Your task to perform on an android device: Search for "macbook pro 13 inch" on walmart.com, select the first entry, and add it to the cart. Image 0: 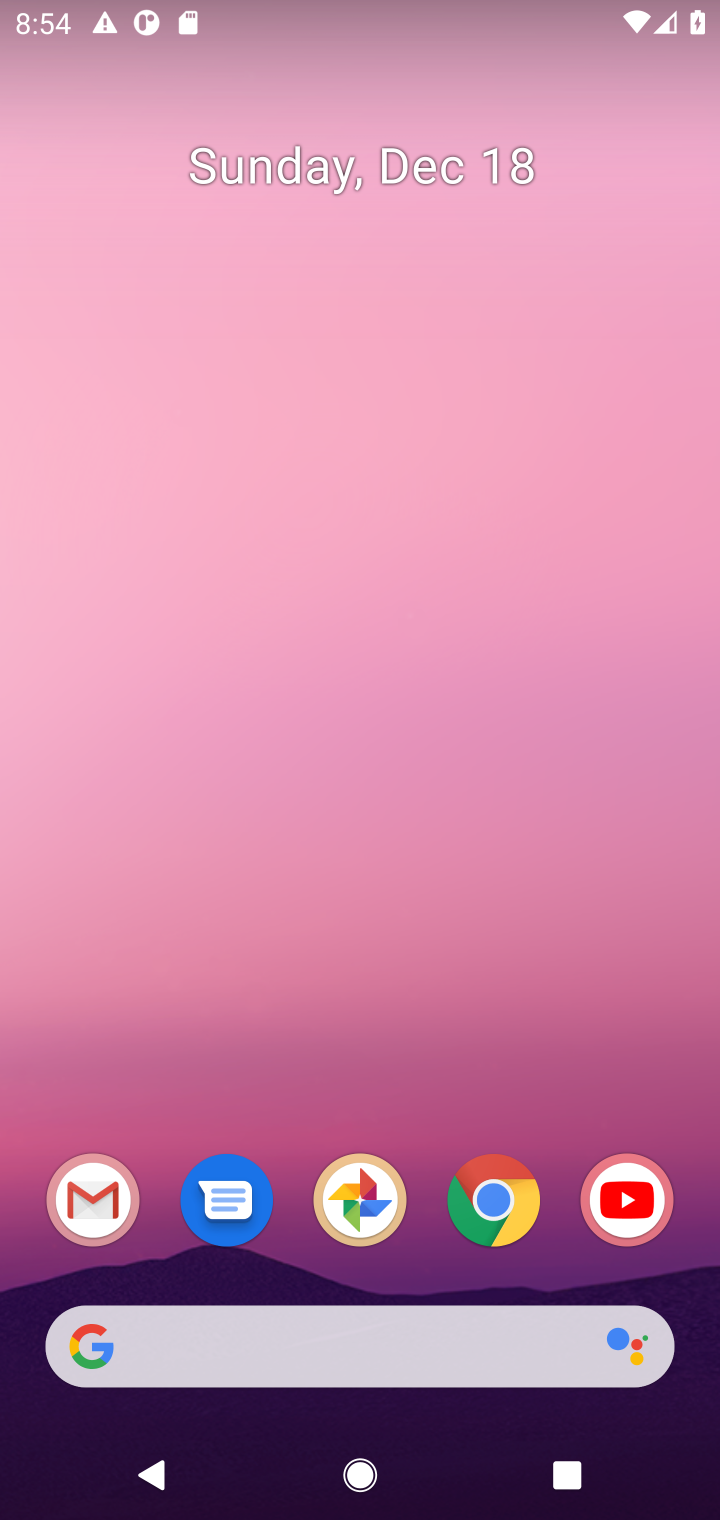
Step 0: click (494, 1207)
Your task to perform on an android device: Search for "macbook pro 13 inch" on walmart.com, select the first entry, and add it to the cart. Image 1: 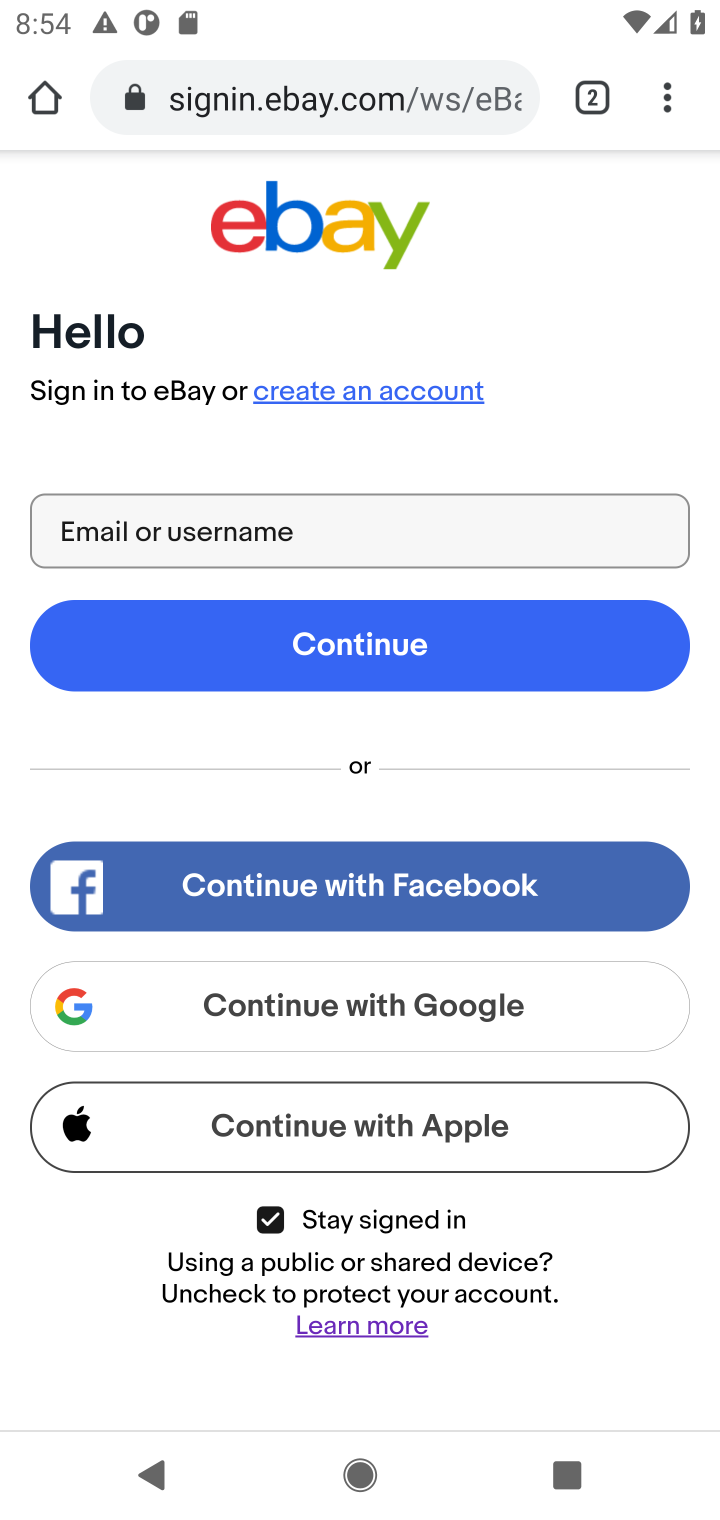
Step 1: click (186, 98)
Your task to perform on an android device: Search for "macbook pro 13 inch" on walmart.com, select the first entry, and add it to the cart. Image 2: 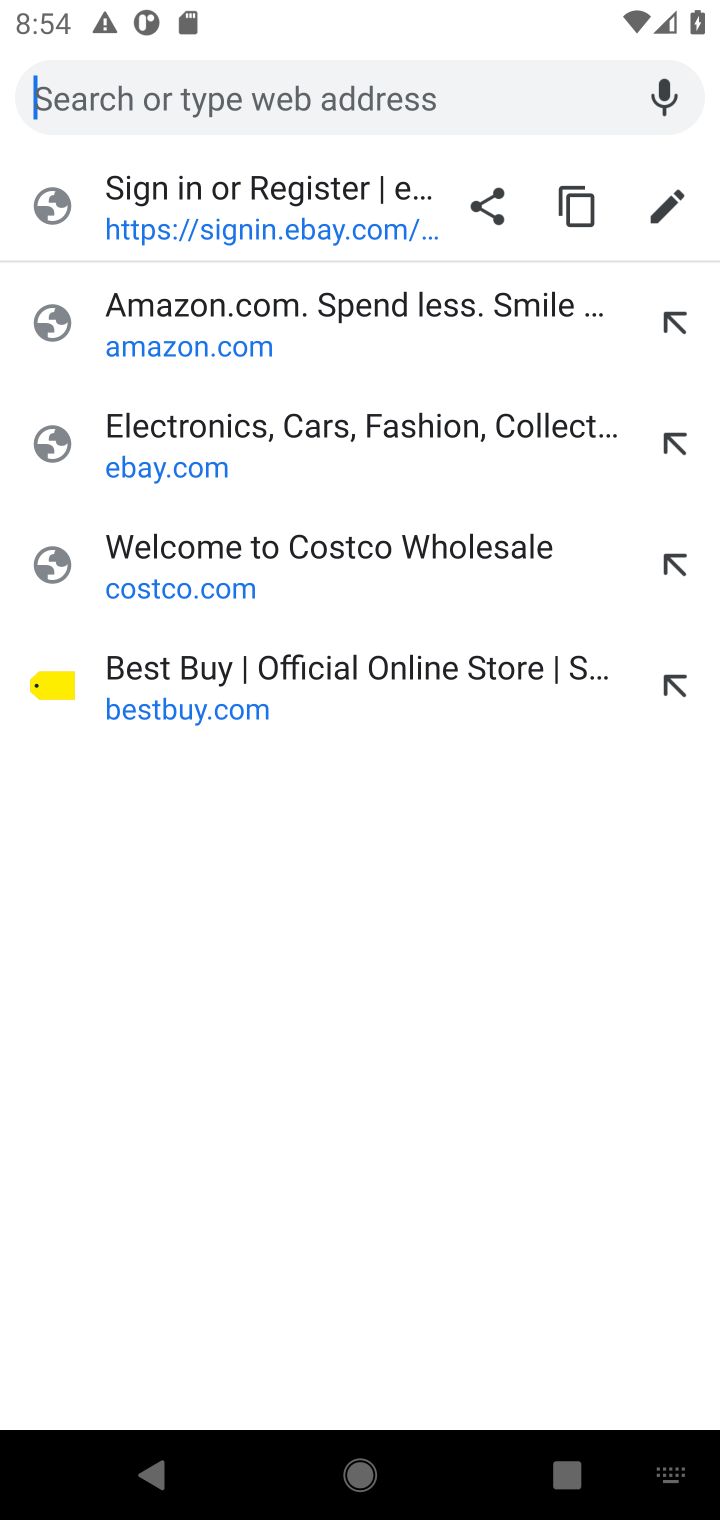
Step 2: type "walmart.com"
Your task to perform on an android device: Search for "macbook pro 13 inch" on walmart.com, select the first entry, and add it to the cart. Image 3: 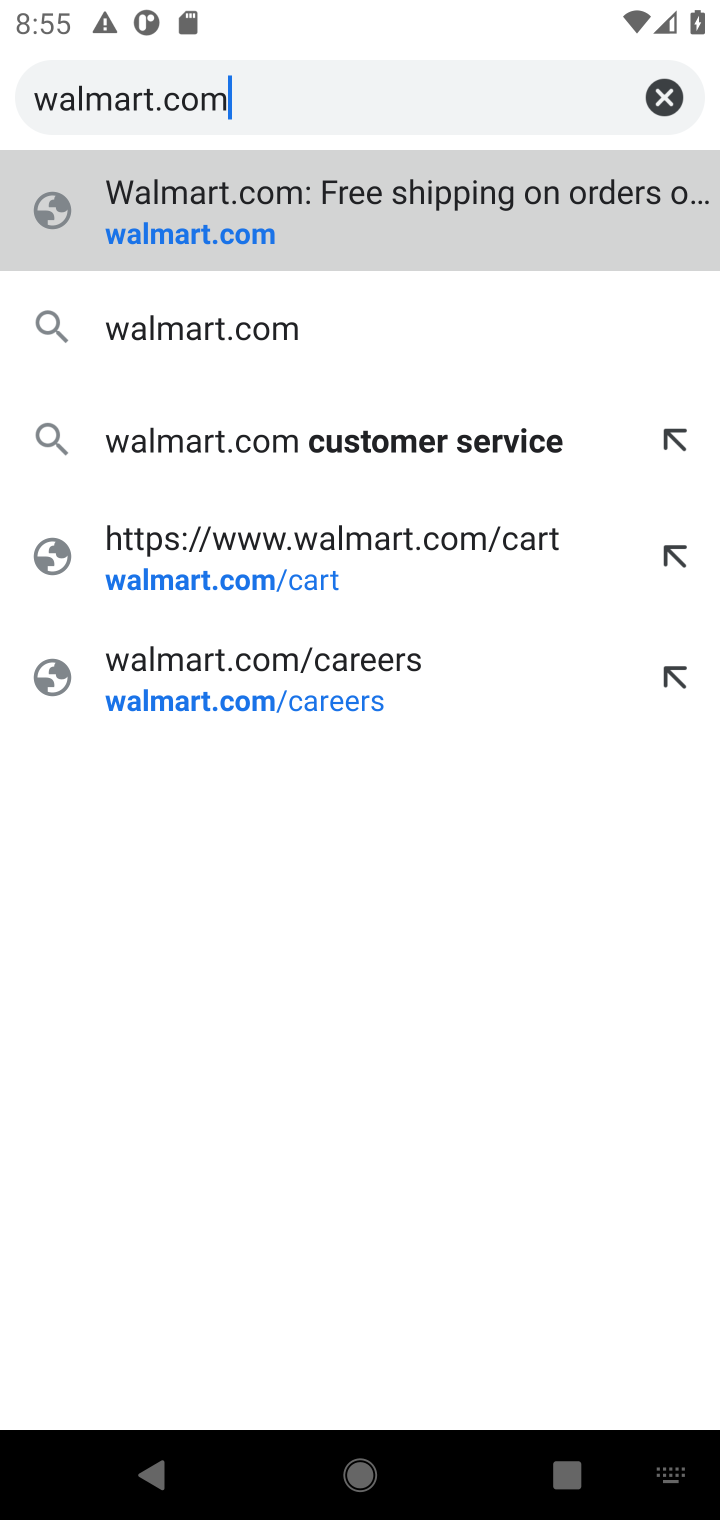
Step 3: click (141, 204)
Your task to perform on an android device: Search for "macbook pro 13 inch" on walmart.com, select the first entry, and add it to the cart. Image 4: 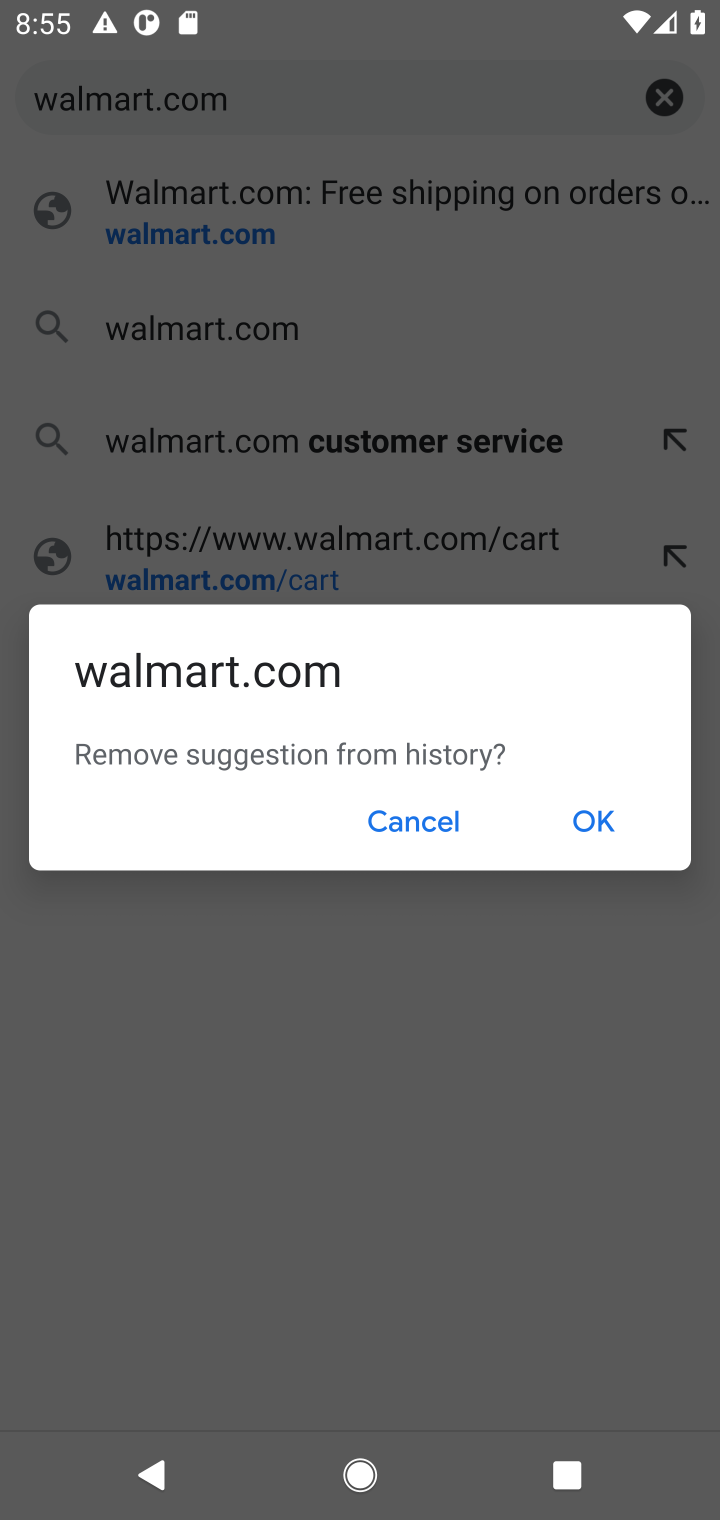
Step 4: click (378, 815)
Your task to perform on an android device: Search for "macbook pro 13 inch" on walmart.com, select the first entry, and add it to the cart. Image 5: 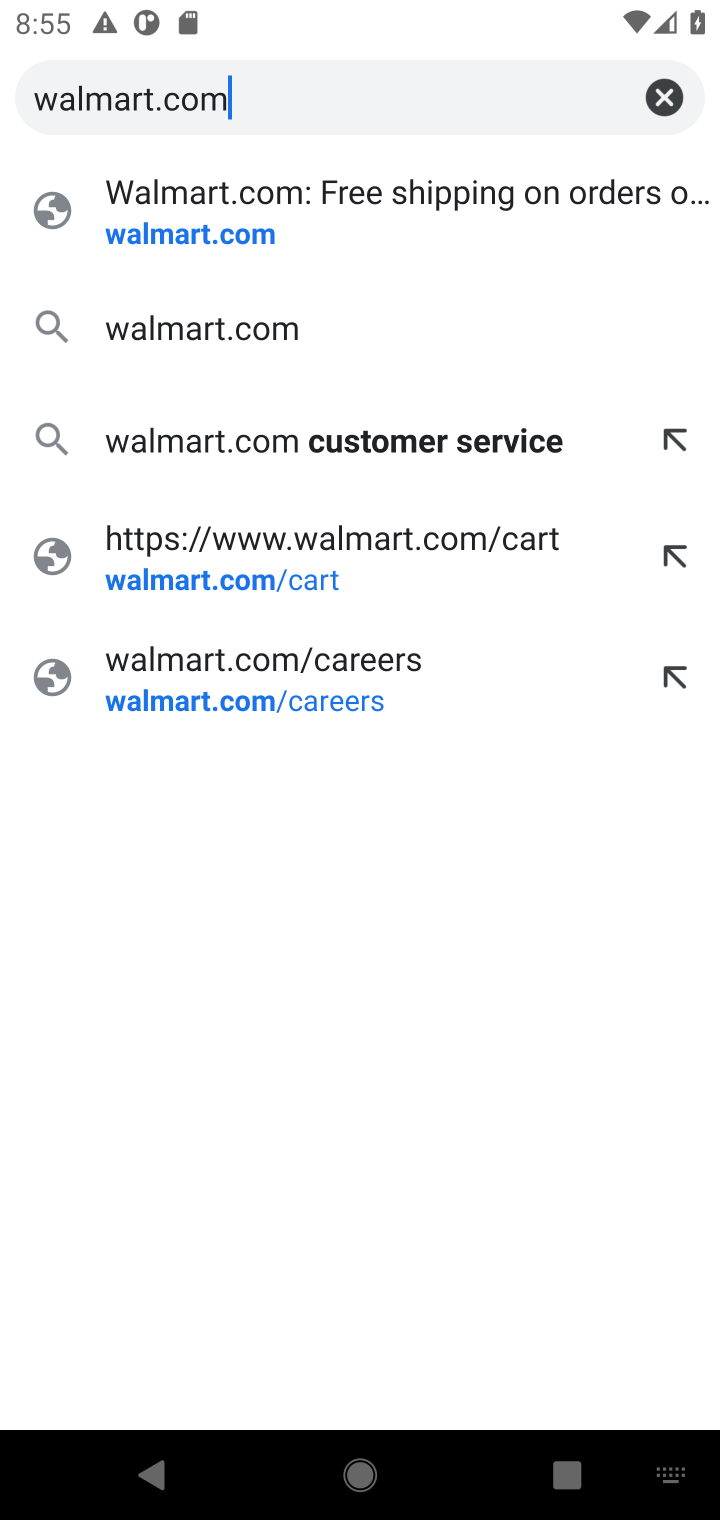
Step 5: click (224, 242)
Your task to perform on an android device: Search for "macbook pro 13 inch" on walmart.com, select the first entry, and add it to the cart. Image 6: 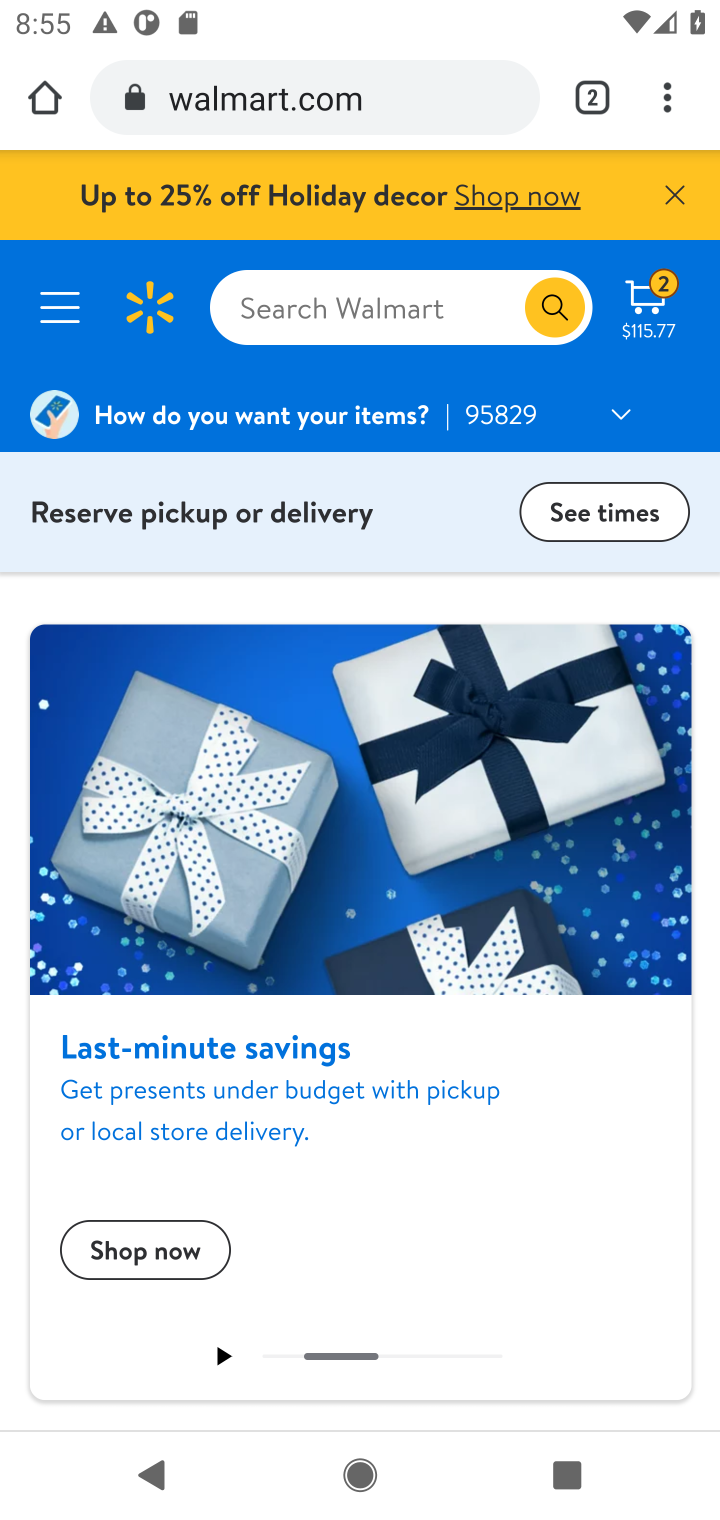
Step 6: click (291, 317)
Your task to perform on an android device: Search for "macbook pro 13 inch" on walmart.com, select the first entry, and add it to the cart. Image 7: 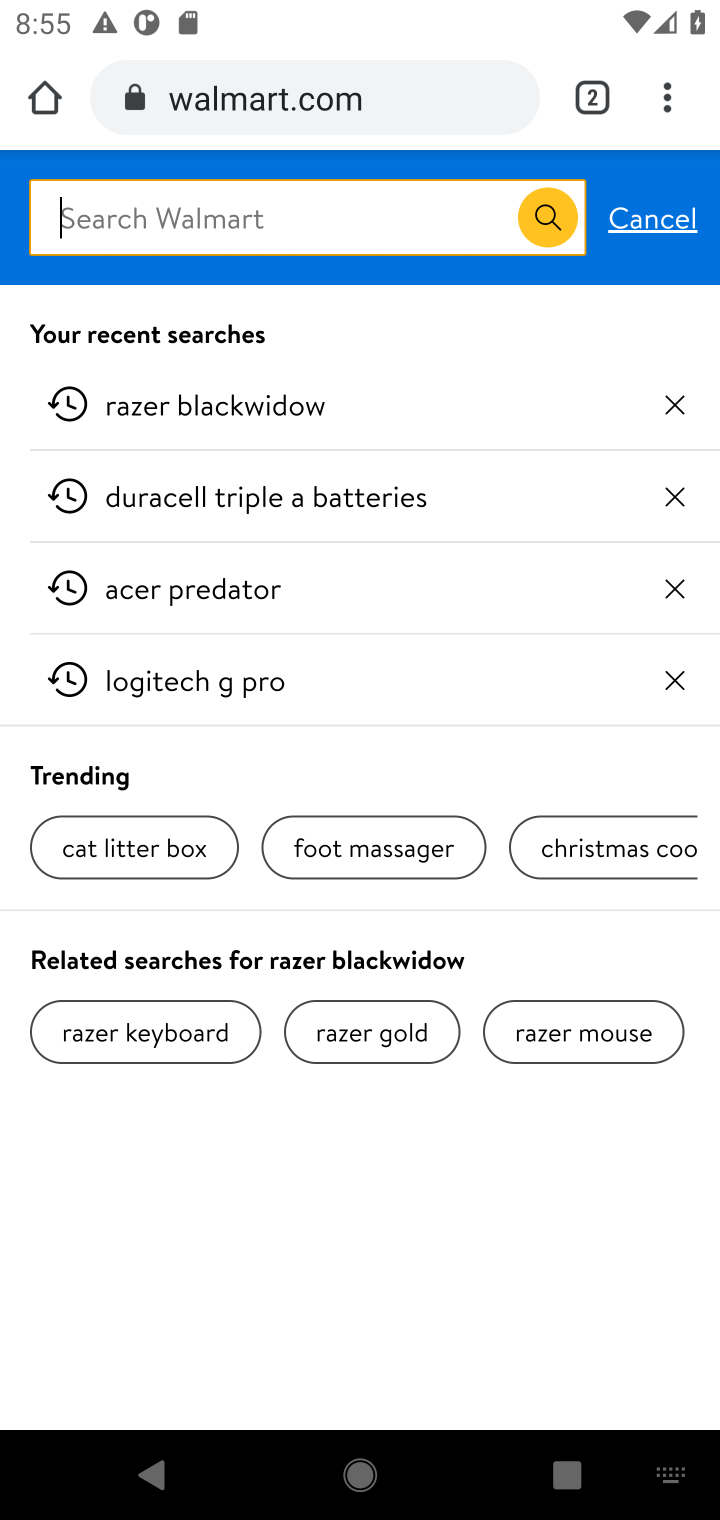
Step 7: type "macbook pro 13 inch"
Your task to perform on an android device: Search for "macbook pro 13 inch" on walmart.com, select the first entry, and add it to the cart. Image 8: 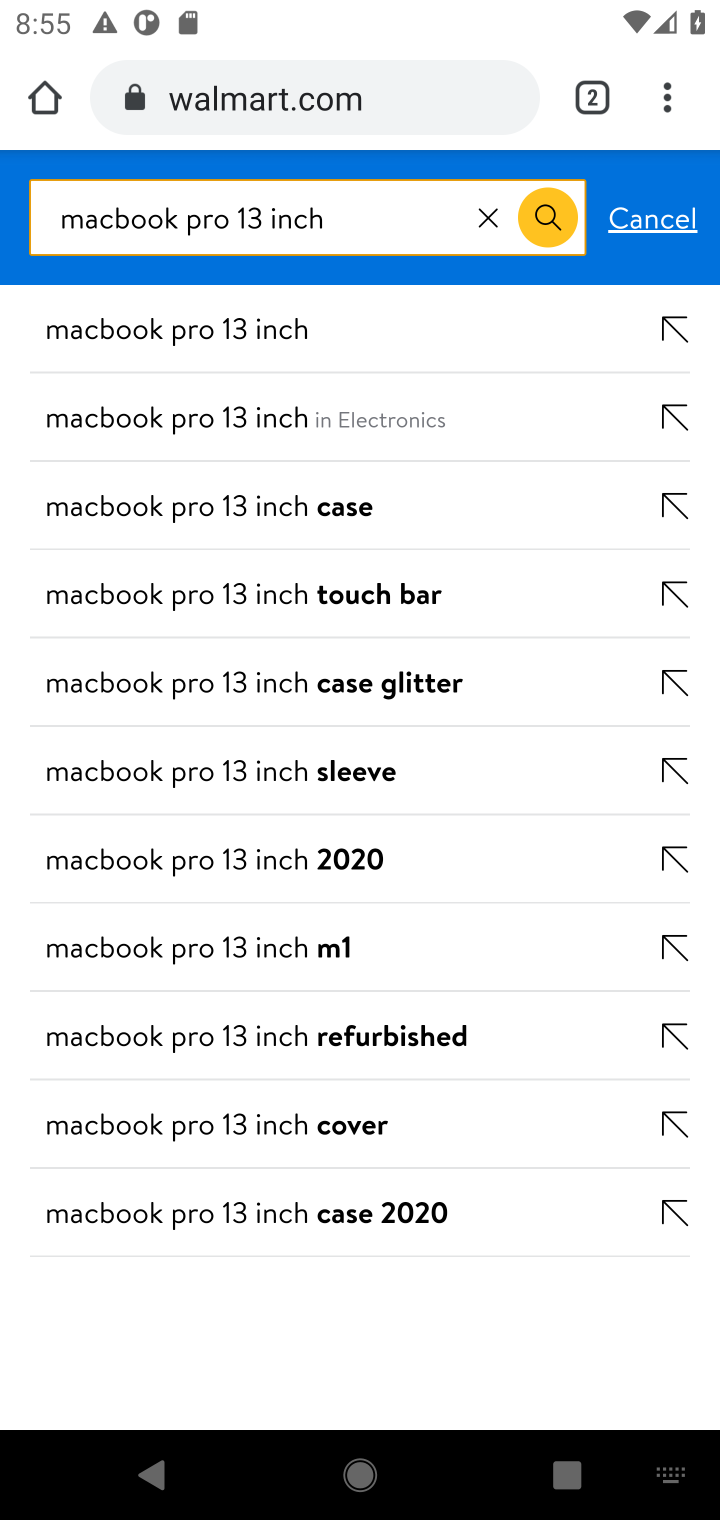
Step 8: click (143, 343)
Your task to perform on an android device: Search for "macbook pro 13 inch" on walmart.com, select the first entry, and add it to the cart. Image 9: 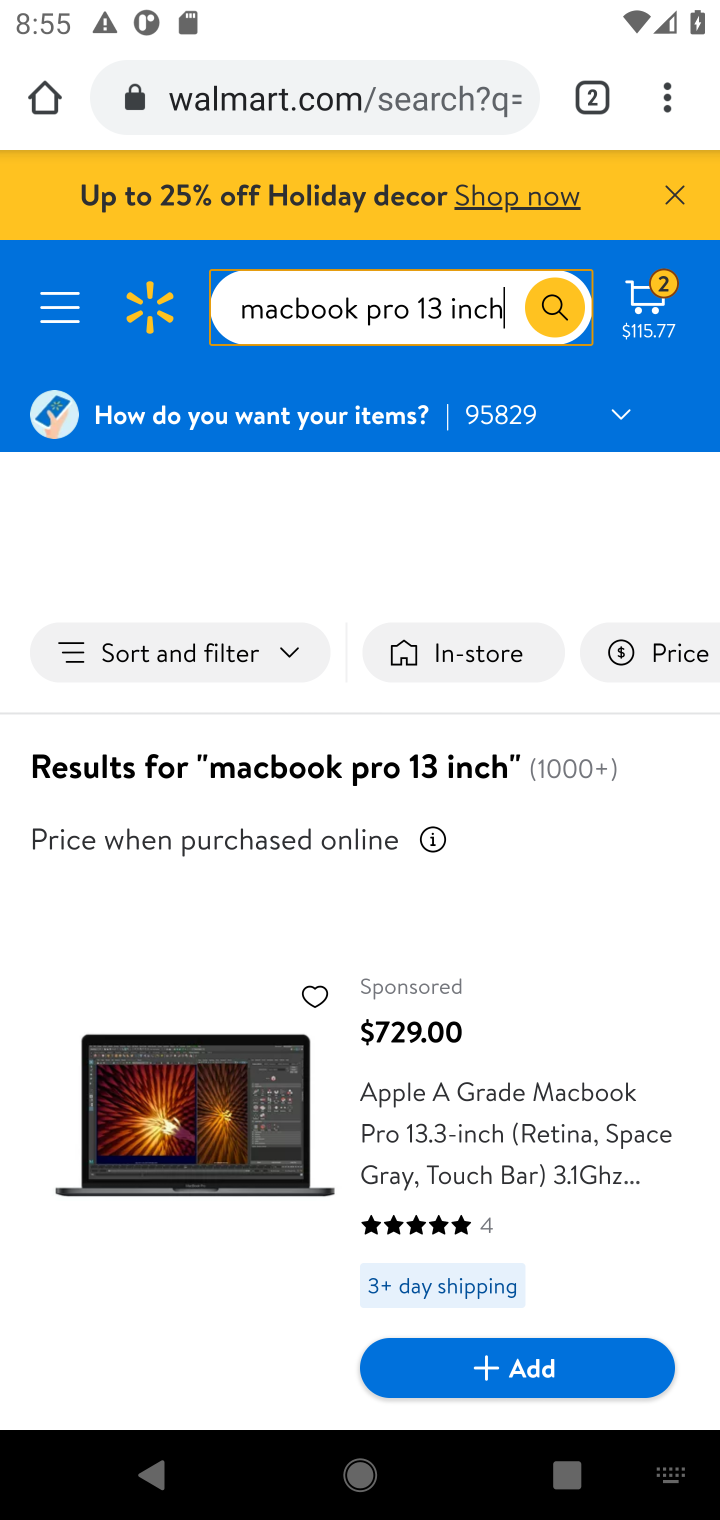
Step 9: drag from (309, 1003) to (307, 506)
Your task to perform on an android device: Search for "macbook pro 13 inch" on walmart.com, select the first entry, and add it to the cart. Image 10: 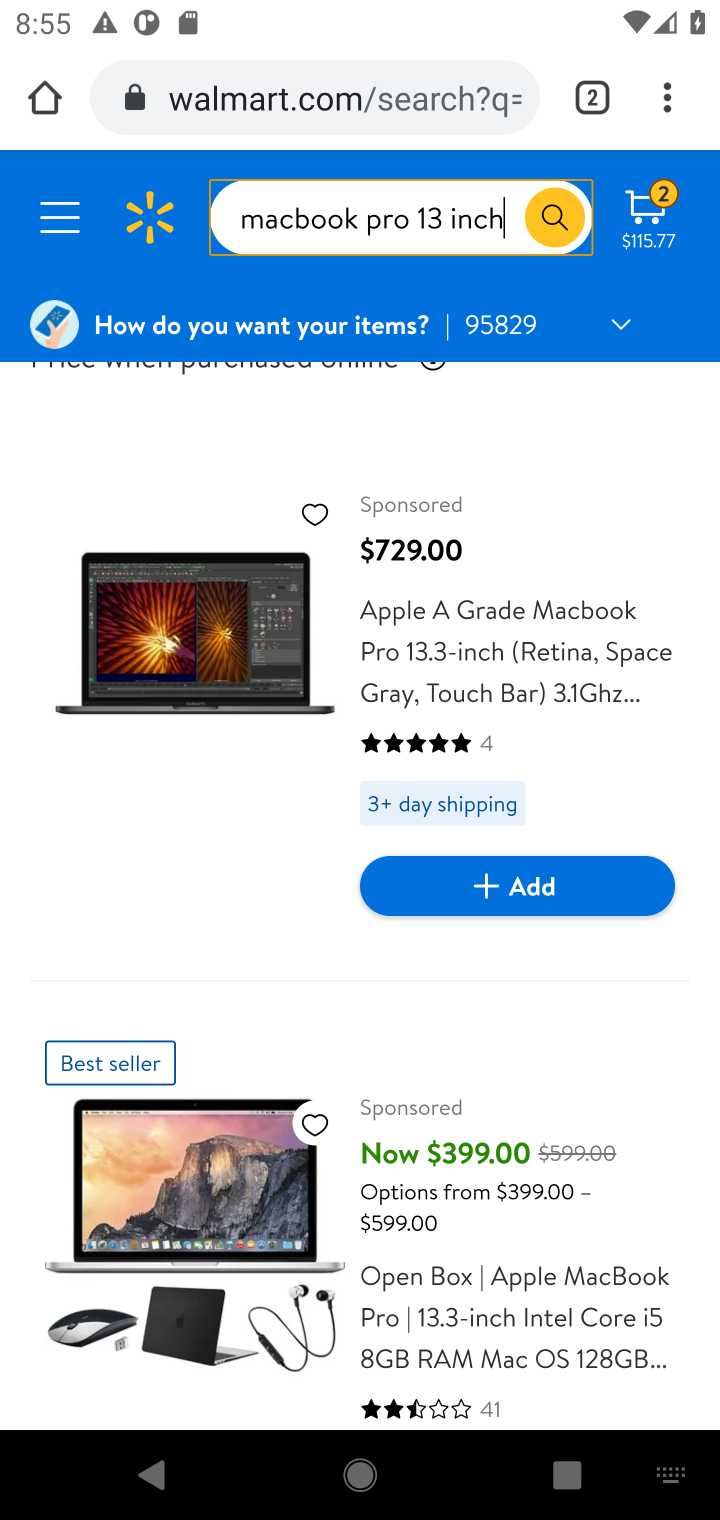
Step 10: click (418, 888)
Your task to perform on an android device: Search for "macbook pro 13 inch" on walmart.com, select the first entry, and add it to the cart. Image 11: 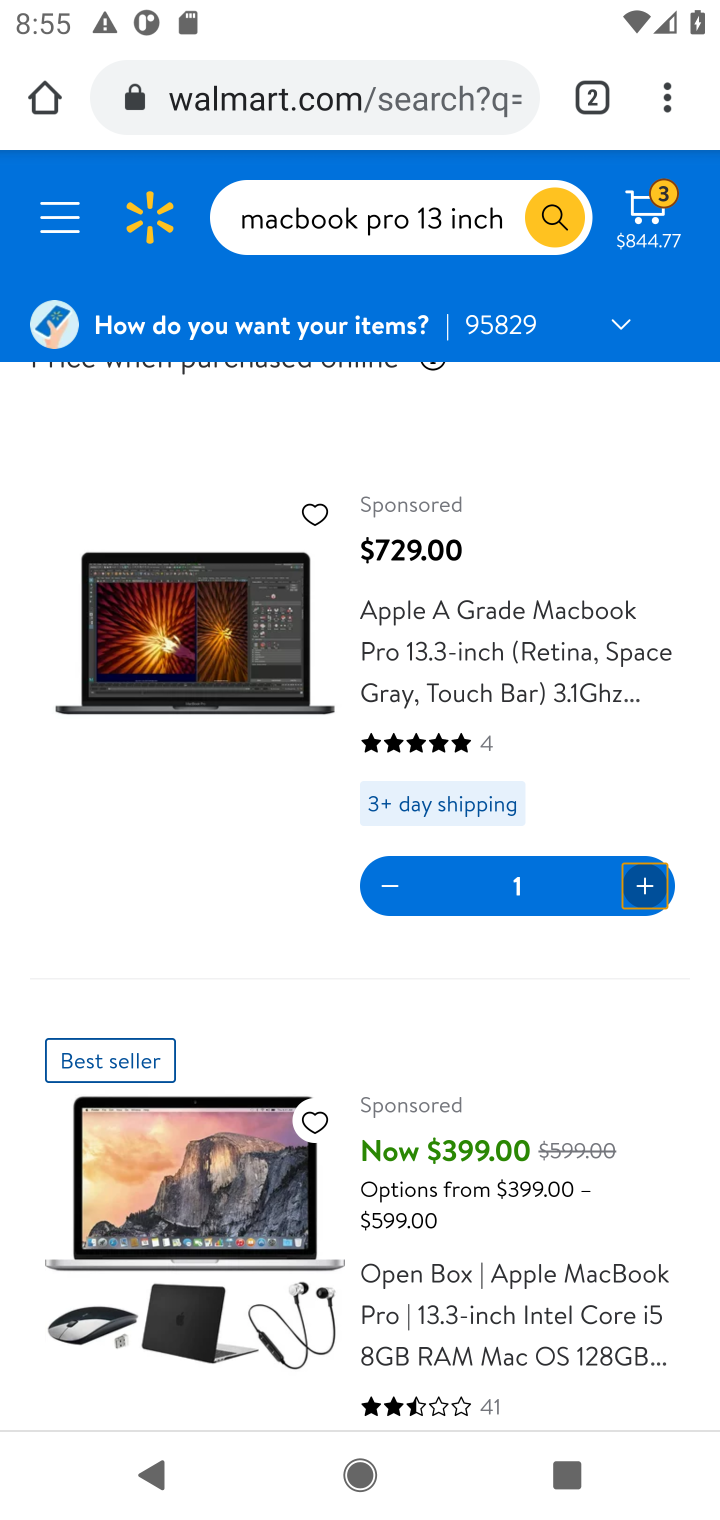
Step 11: task complete